Your task to perform on an android device: toggle airplane mode Image 0: 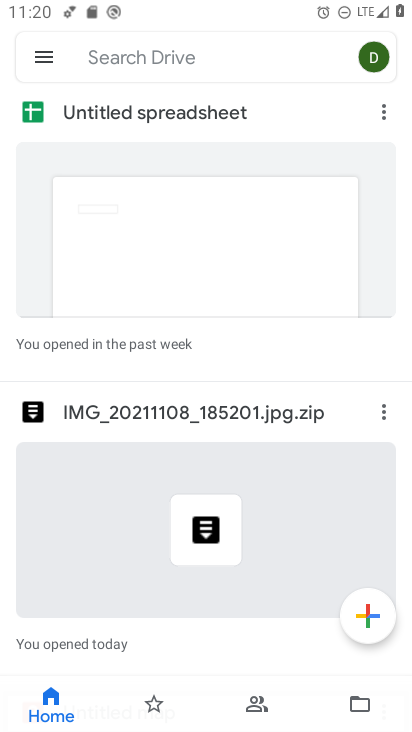
Step 0: press home button
Your task to perform on an android device: toggle airplane mode Image 1: 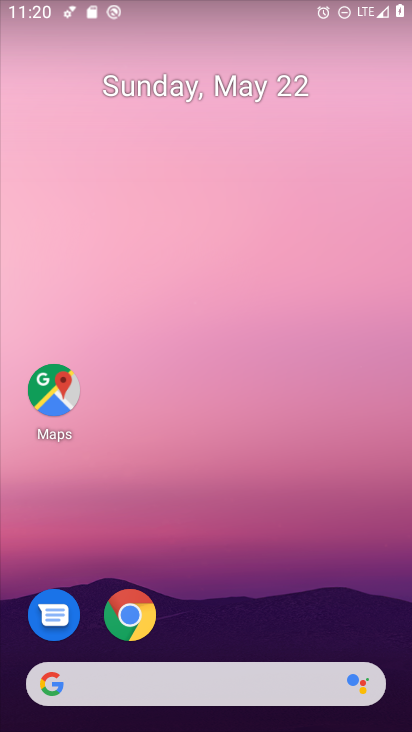
Step 1: drag from (245, 569) to (270, 0)
Your task to perform on an android device: toggle airplane mode Image 2: 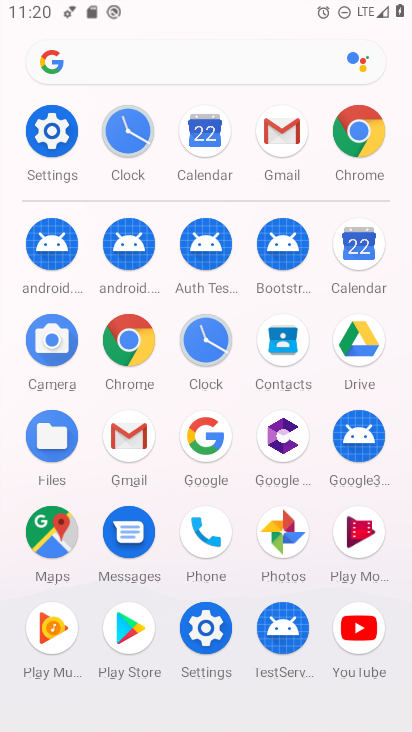
Step 2: click (63, 133)
Your task to perform on an android device: toggle airplane mode Image 3: 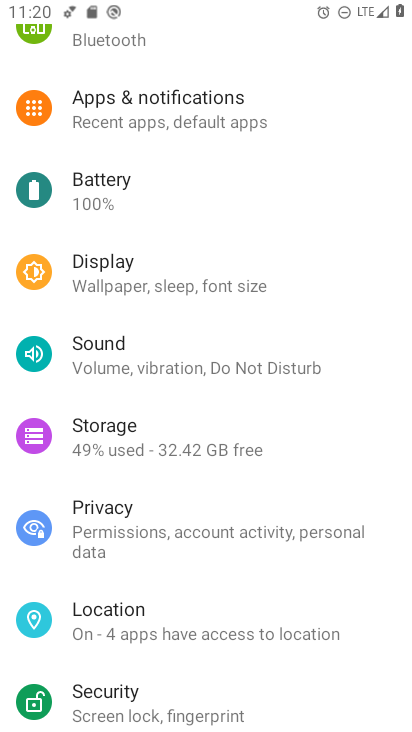
Step 3: drag from (211, 130) to (263, 639)
Your task to perform on an android device: toggle airplane mode Image 4: 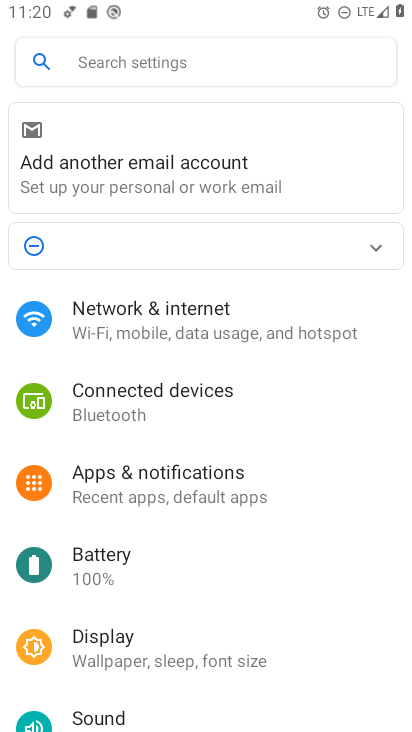
Step 4: drag from (246, 531) to (235, 661)
Your task to perform on an android device: toggle airplane mode Image 5: 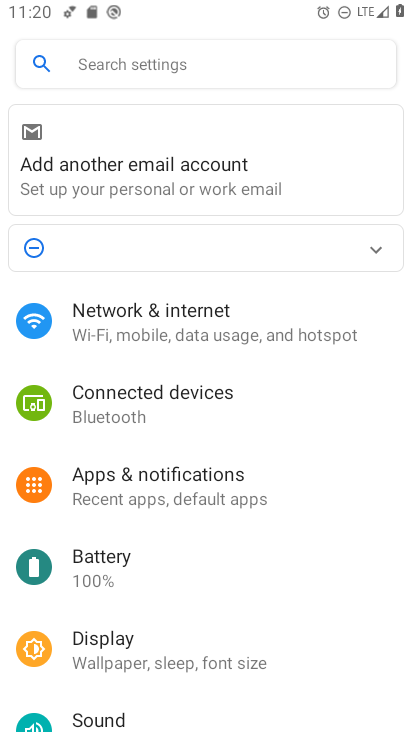
Step 5: drag from (192, 559) to (209, 229)
Your task to perform on an android device: toggle airplane mode Image 6: 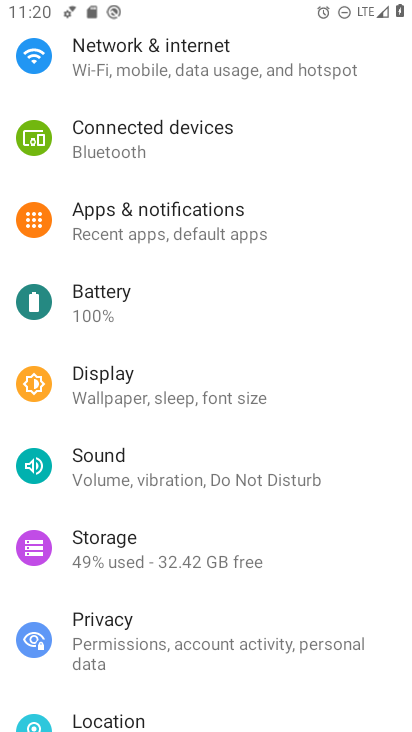
Step 6: click (147, 76)
Your task to perform on an android device: toggle airplane mode Image 7: 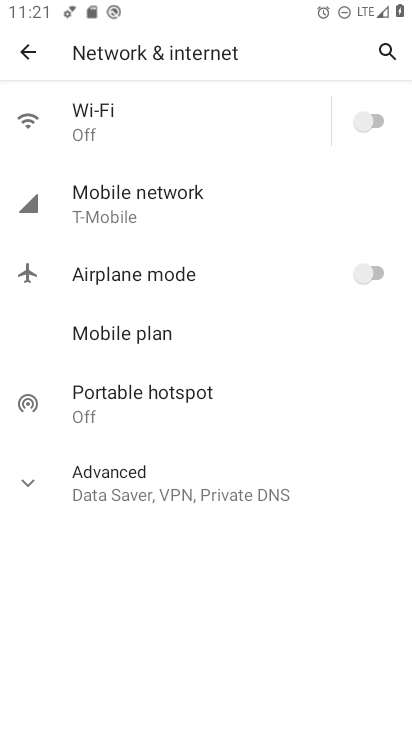
Step 7: click (375, 270)
Your task to perform on an android device: toggle airplane mode Image 8: 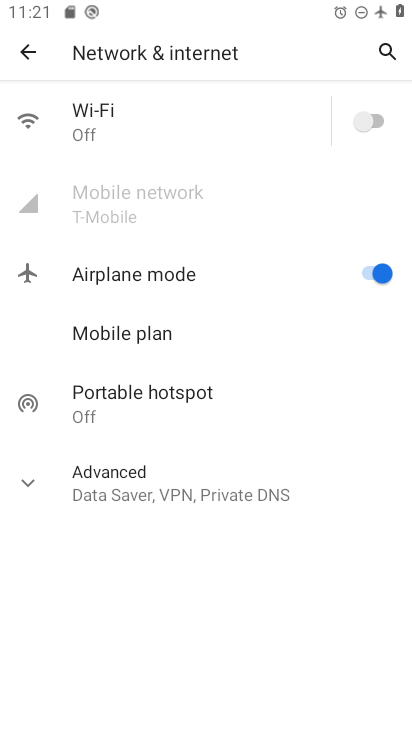
Step 8: task complete